Your task to perform on an android device: see sites visited before in the chrome app Image 0: 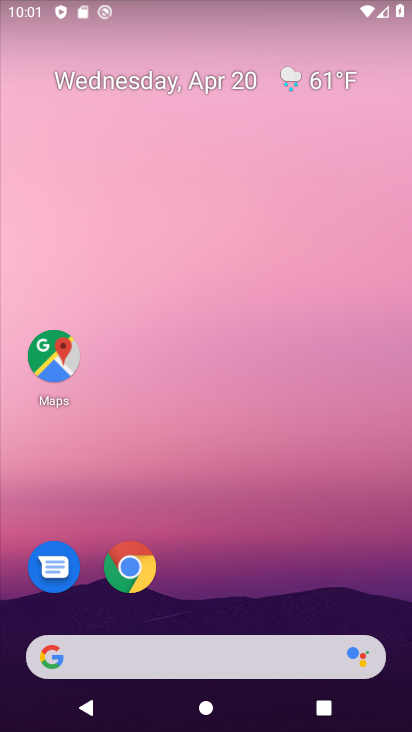
Step 0: click (130, 580)
Your task to perform on an android device: see sites visited before in the chrome app Image 1: 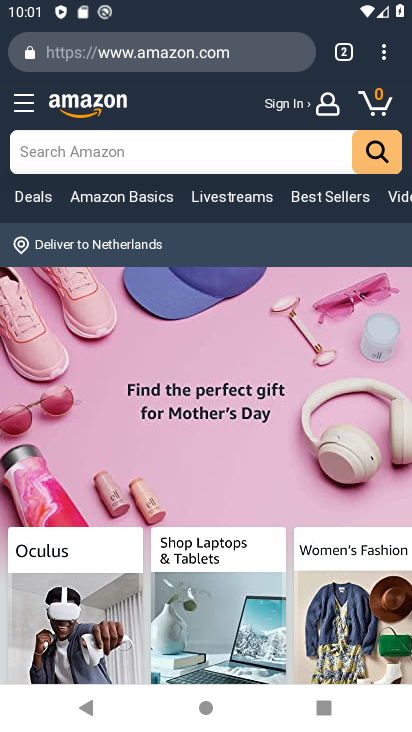
Step 1: task complete